Your task to perform on an android device: Search for sushi restaurants on Maps Image 0: 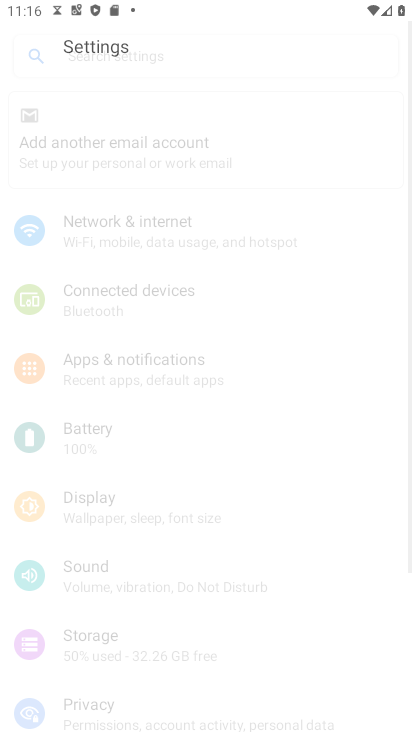
Step 0: drag from (233, 612) to (208, 66)
Your task to perform on an android device: Search for sushi restaurants on Maps Image 1: 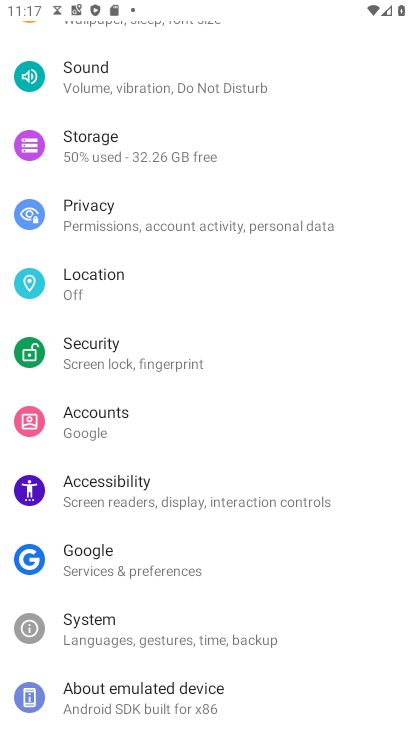
Step 1: press home button
Your task to perform on an android device: Search for sushi restaurants on Maps Image 2: 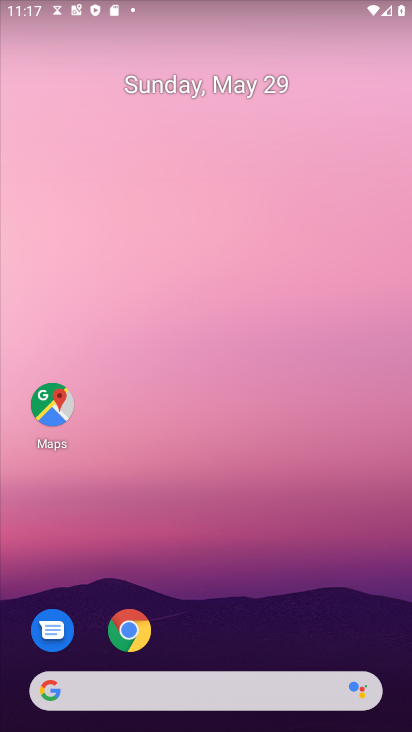
Step 2: click (38, 425)
Your task to perform on an android device: Search for sushi restaurants on Maps Image 3: 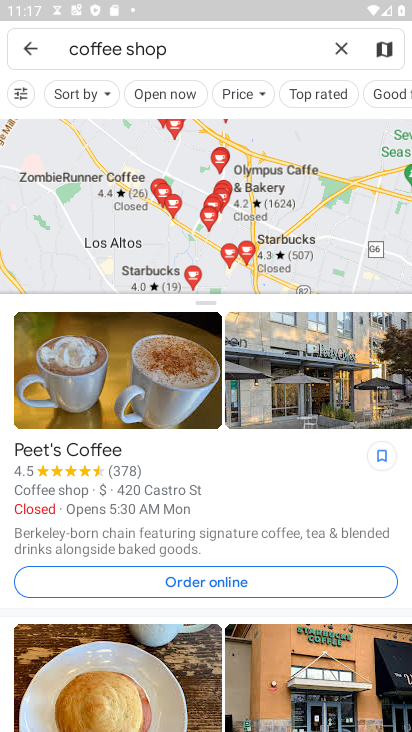
Step 3: click (340, 36)
Your task to perform on an android device: Search for sushi restaurants on Maps Image 4: 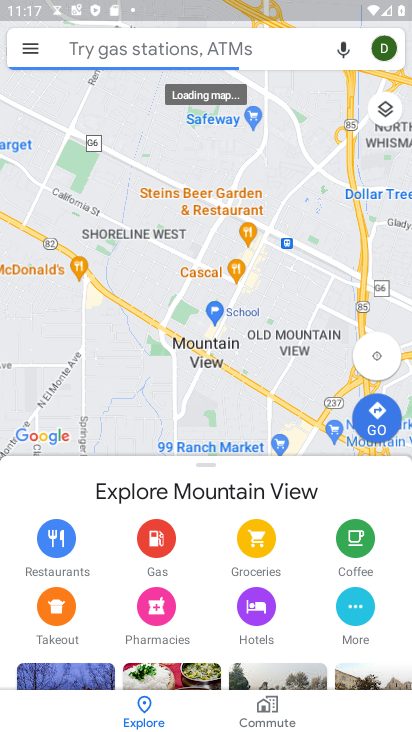
Step 4: click (207, 54)
Your task to perform on an android device: Search for sushi restaurants on Maps Image 5: 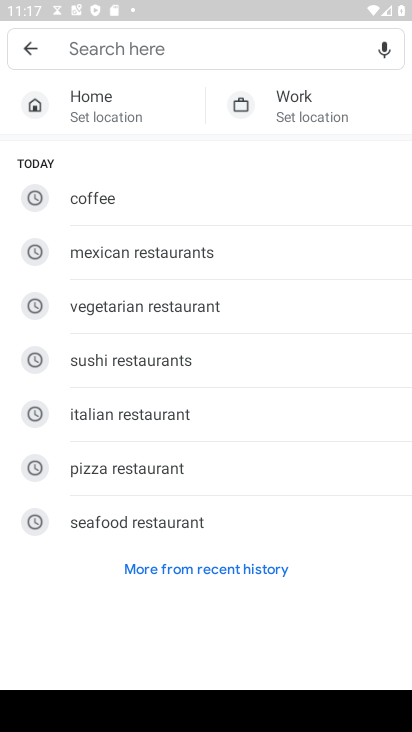
Step 5: click (174, 352)
Your task to perform on an android device: Search for sushi restaurants on Maps Image 6: 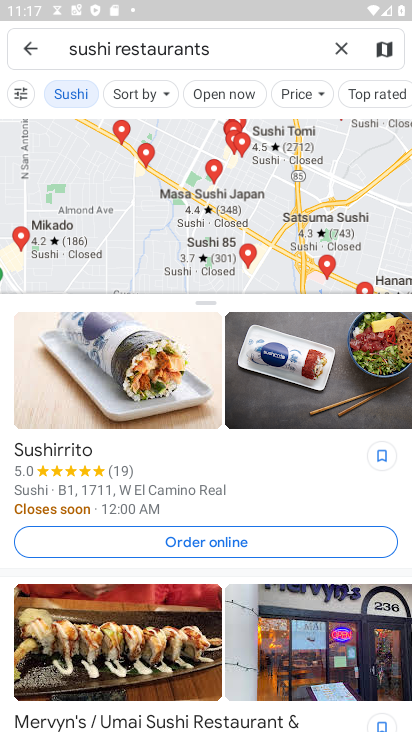
Step 6: task complete